Your task to perform on an android device: refresh tabs in the chrome app Image 0: 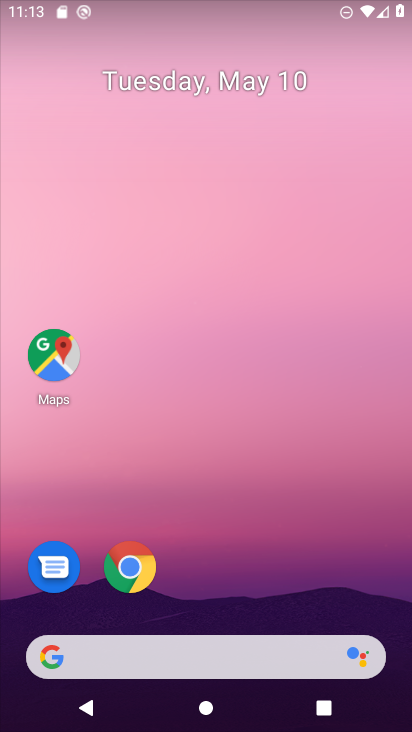
Step 0: click (132, 582)
Your task to perform on an android device: refresh tabs in the chrome app Image 1: 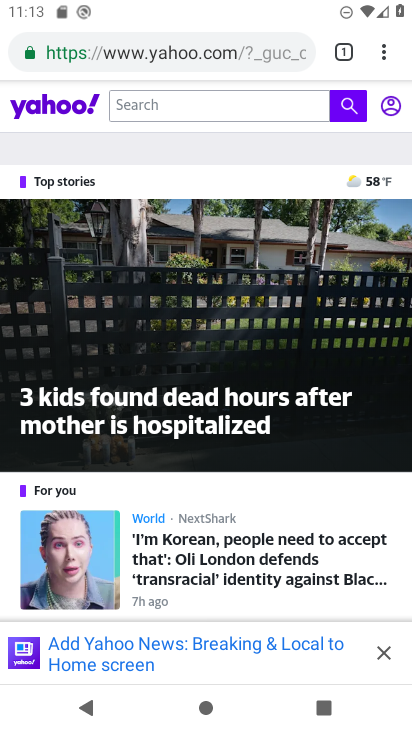
Step 1: click (378, 58)
Your task to perform on an android device: refresh tabs in the chrome app Image 2: 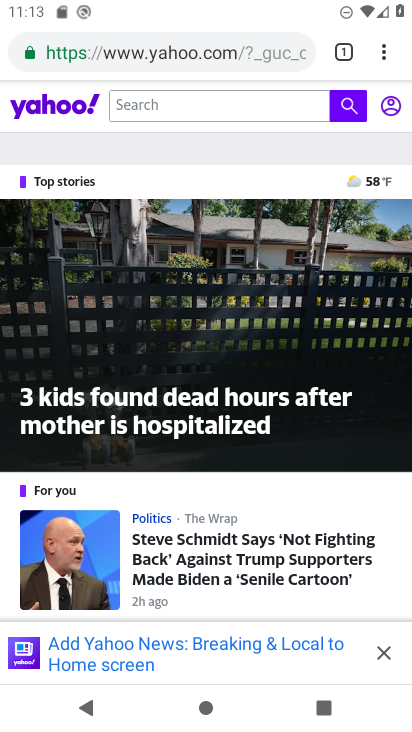
Step 2: task complete